Your task to perform on an android device: toggle wifi Image 0: 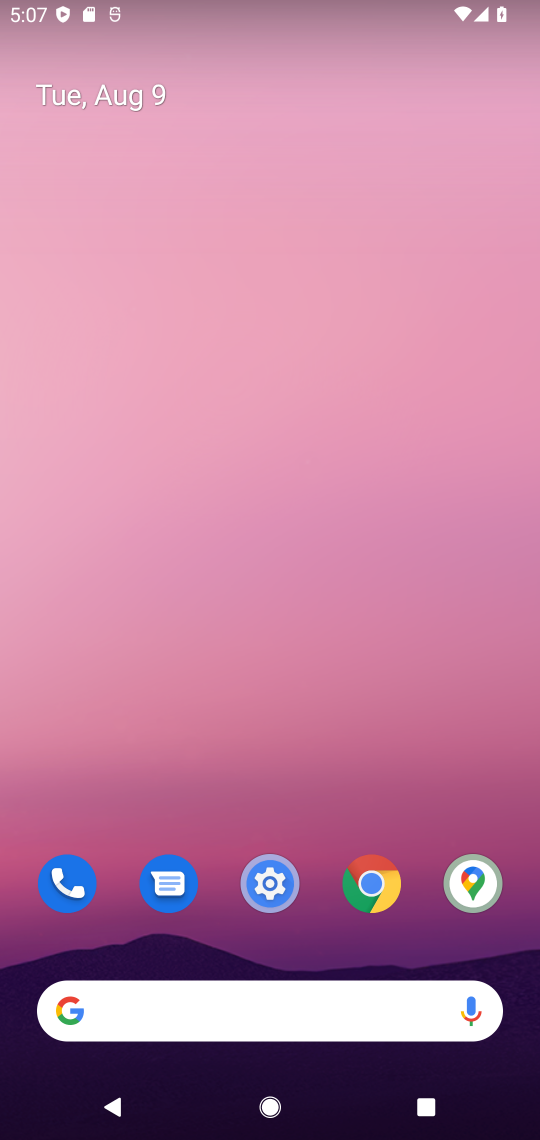
Step 0: click (273, 871)
Your task to perform on an android device: toggle wifi Image 1: 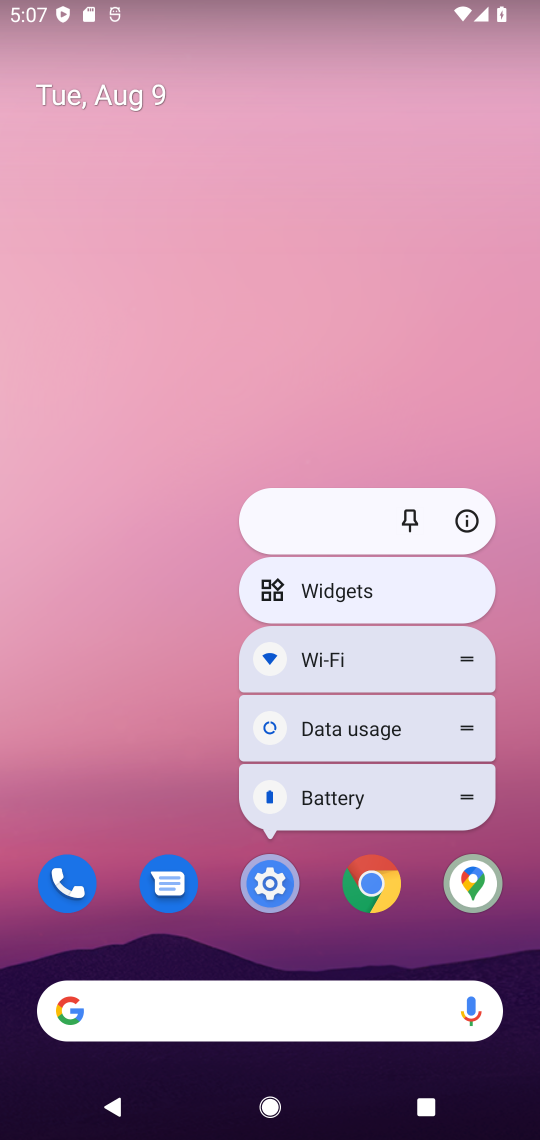
Step 1: click (269, 884)
Your task to perform on an android device: toggle wifi Image 2: 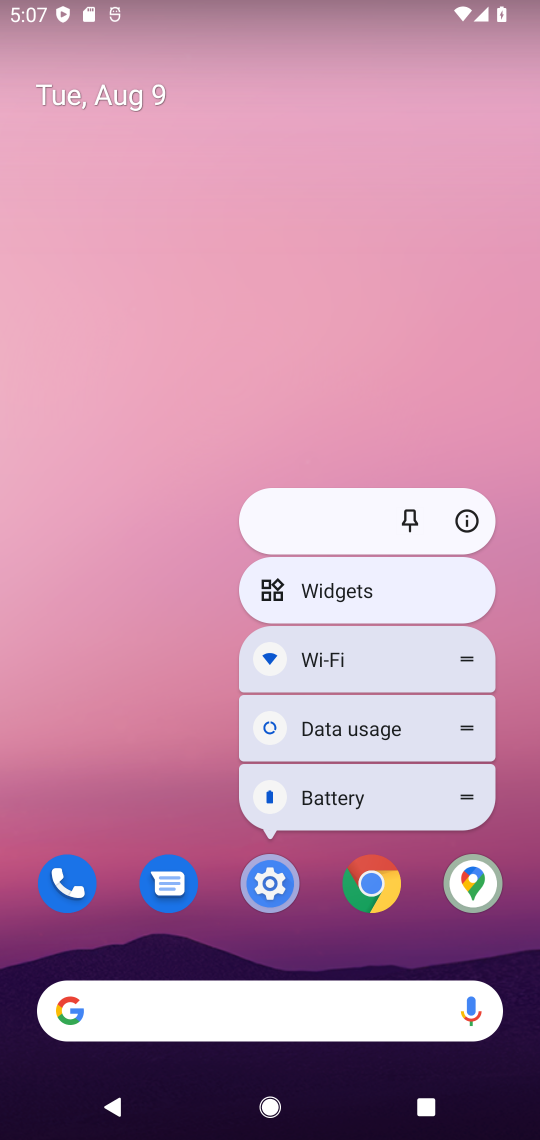
Step 2: click (268, 889)
Your task to perform on an android device: toggle wifi Image 3: 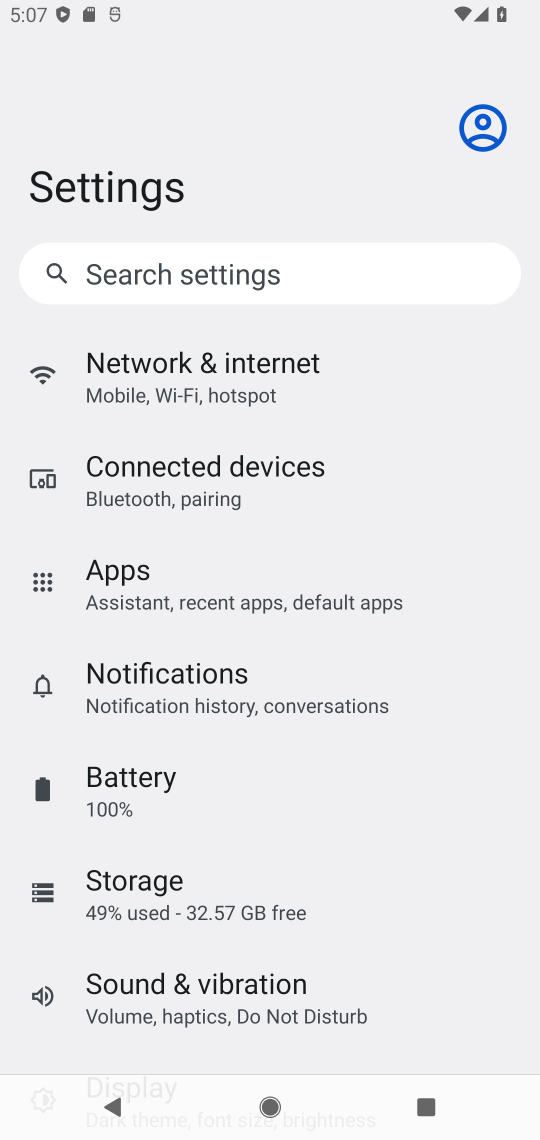
Step 3: click (199, 382)
Your task to perform on an android device: toggle wifi Image 4: 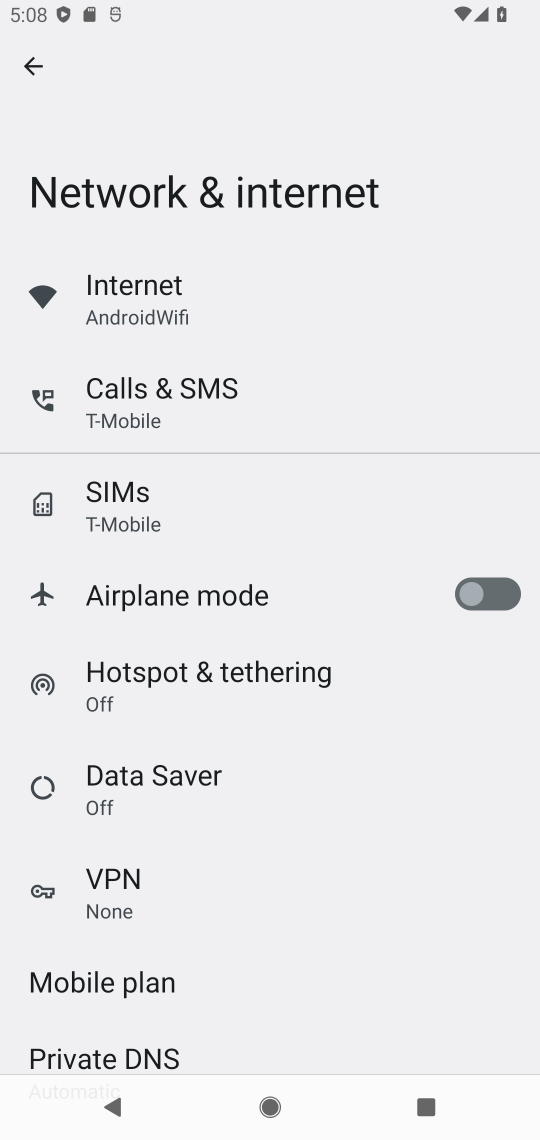
Step 4: click (220, 306)
Your task to perform on an android device: toggle wifi Image 5: 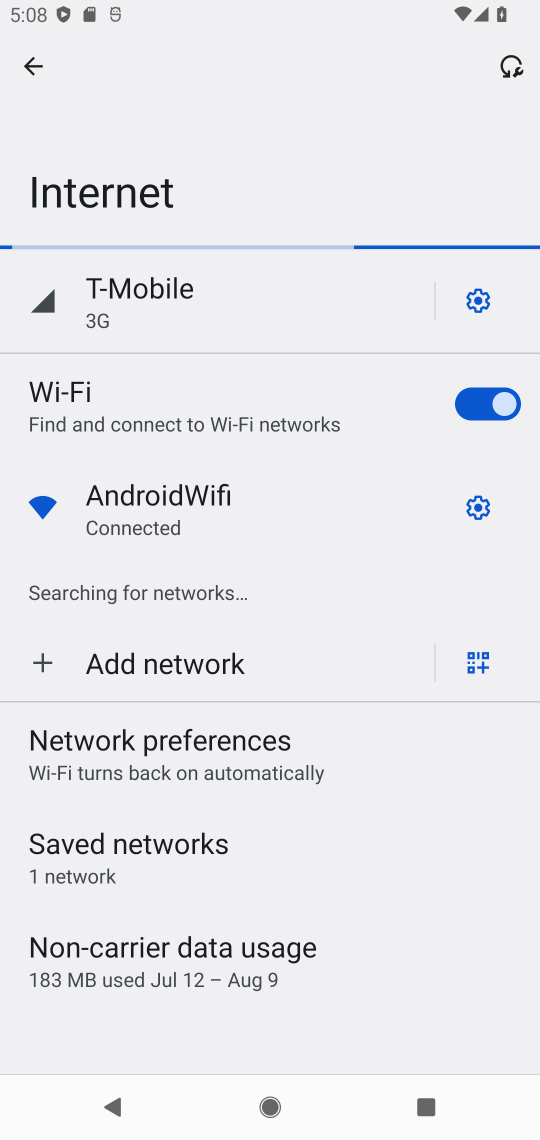
Step 5: click (479, 396)
Your task to perform on an android device: toggle wifi Image 6: 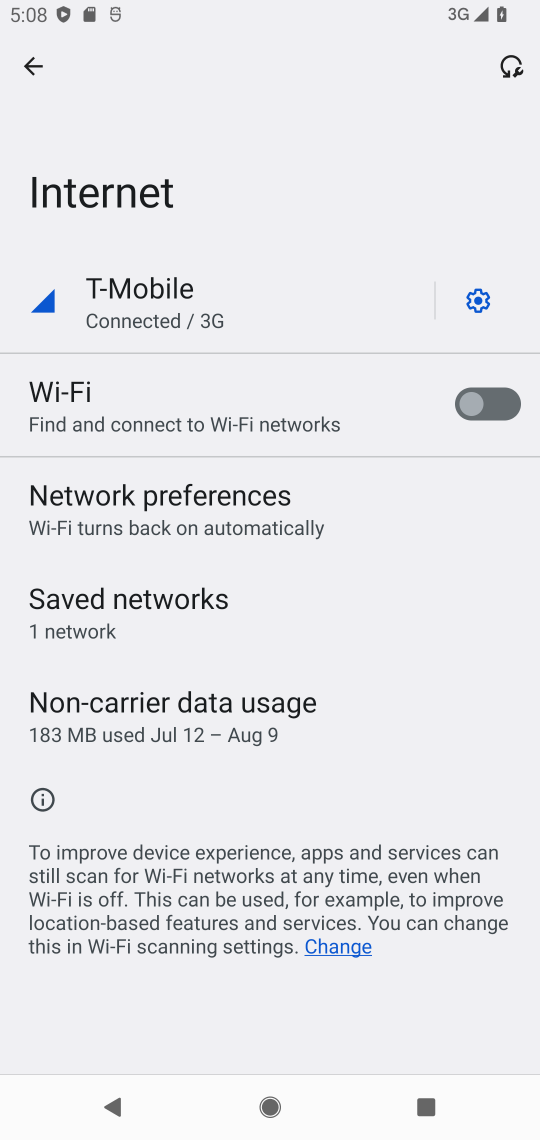
Step 6: task complete